Your task to perform on an android device: set an alarm Image 0: 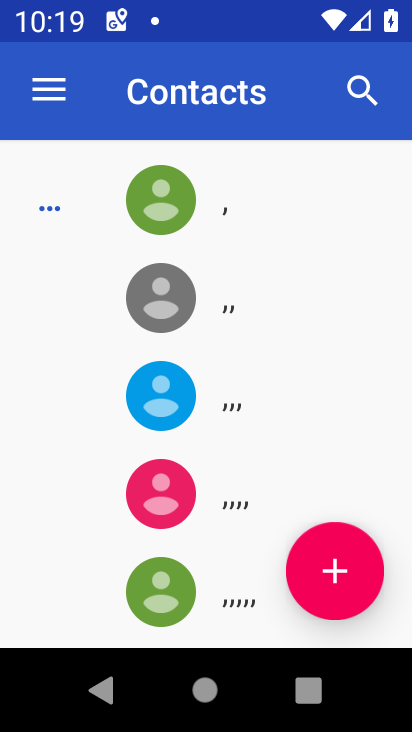
Step 0: drag from (242, 566) to (337, 69)
Your task to perform on an android device: set an alarm Image 1: 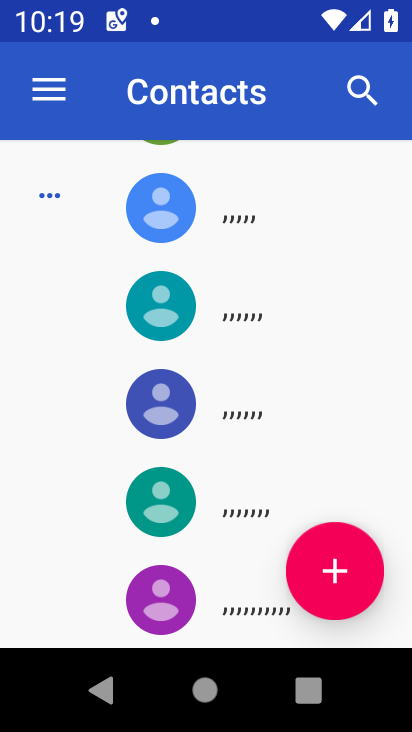
Step 1: drag from (238, 583) to (296, 121)
Your task to perform on an android device: set an alarm Image 2: 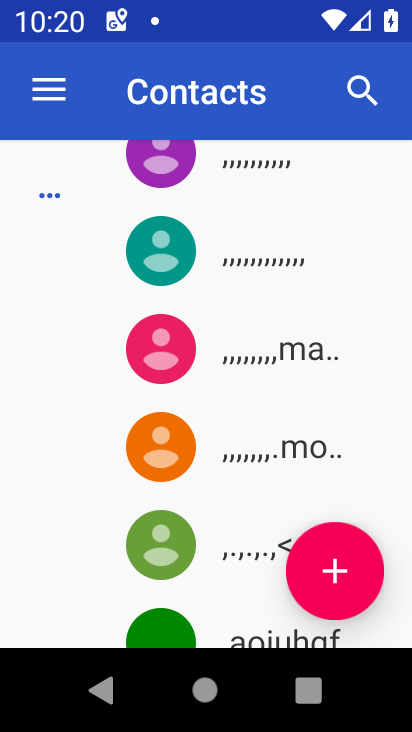
Step 2: press home button
Your task to perform on an android device: set an alarm Image 3: 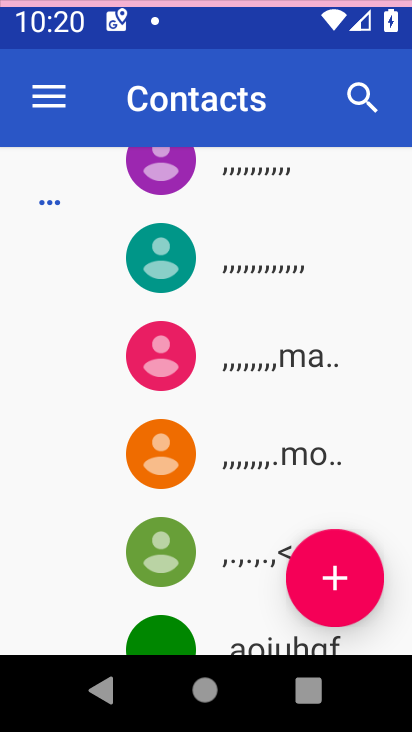
Step 3: drag from (193, 493) to (345, 48)
Your task to perform on an android device: set an alarm Image 4: 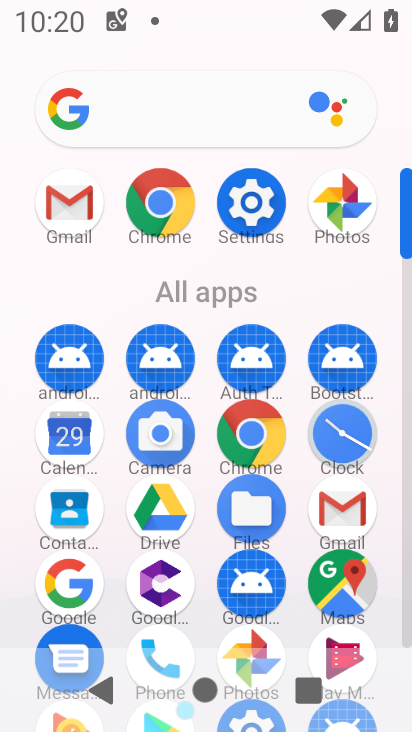
Step 4: click (342, 430)
Your task to perform on an android device: set an alarm Image 5: 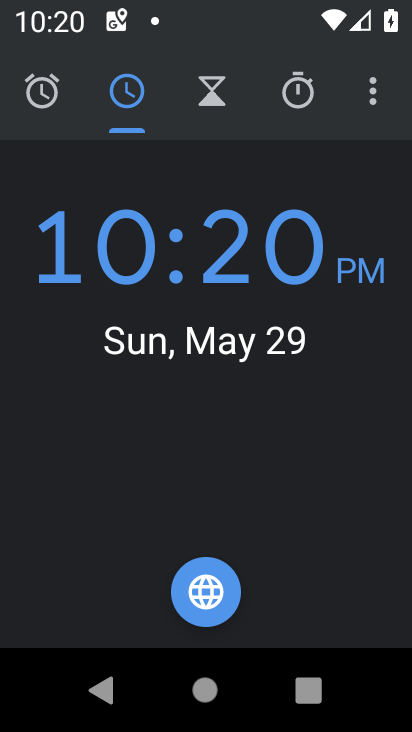
Step 5: drag from (370, 86) to (154, 183)
Your task to perform on an android device: set an alarm Image 6: 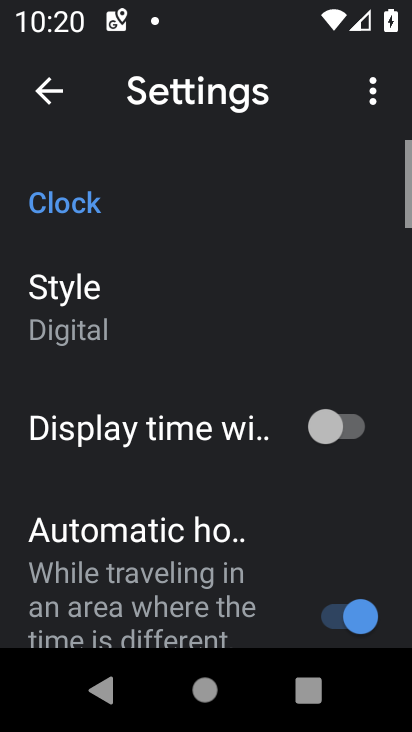
Step 6: click (65, 186)
Your task to perform on an android device: set an alarm Image 7: 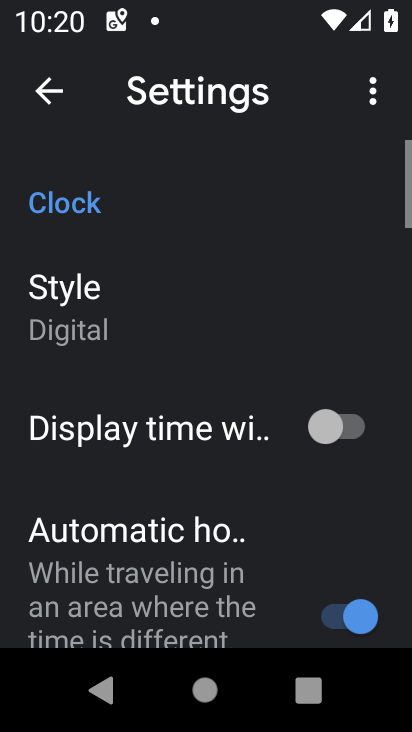
Step 7: click (55, 104)
Your task to perform on an android device: set an alarm Image 8: 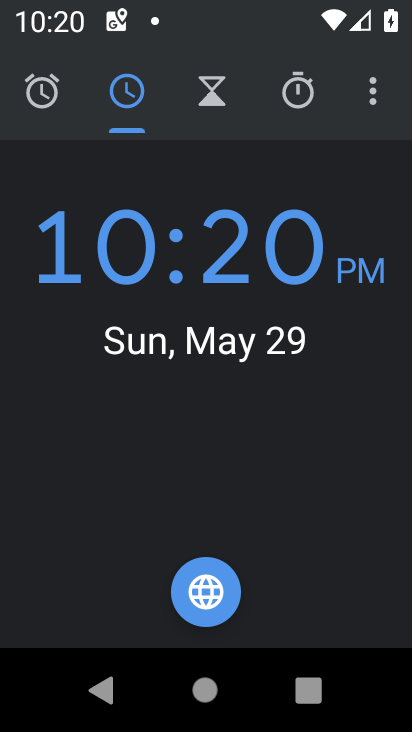
Step 8: click (55, 104)
Your task to perform on an android device: set an alarm Image 9: 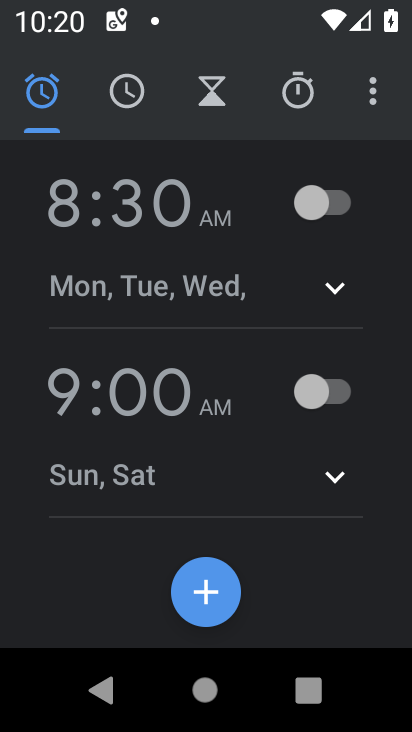
Step 9: drag from (216, 404) to (273, 148)
Your task to perform on an android device: set an alarm Image 10: 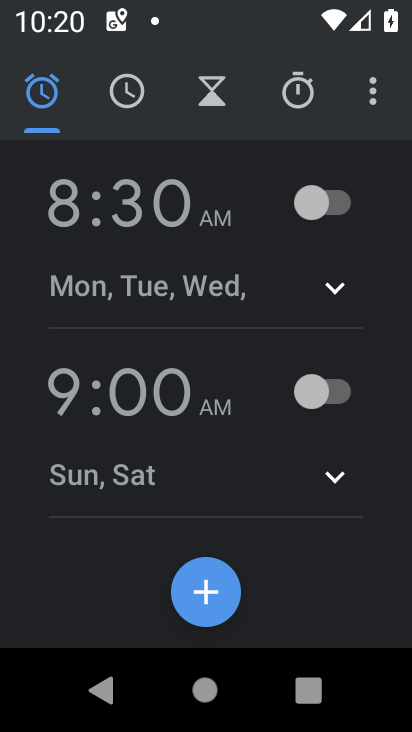
Step 10: drag from (248, 483) to (309, 122)
Your task to perform on an android device: set an alarm Image 11: 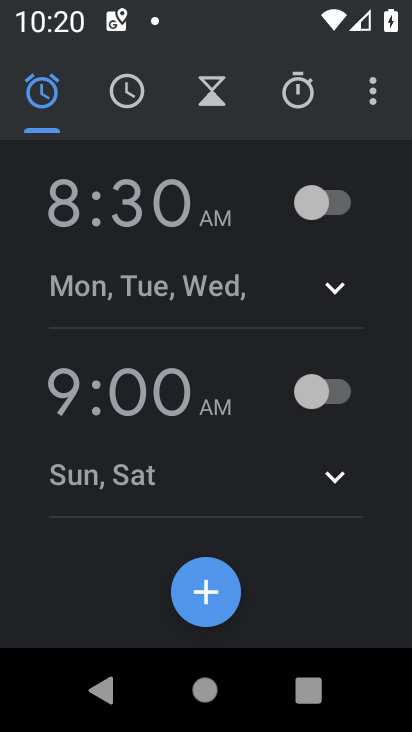
Step 11: click (322, 203)
Your task to perform on an android device: set an alarm Image 12: 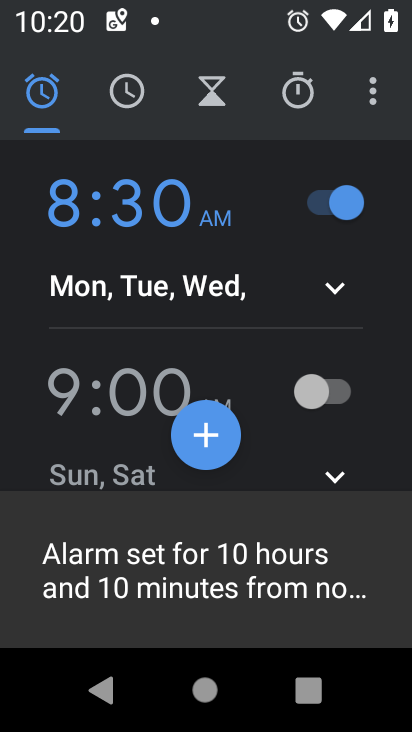
Step 12: task complete